Your task to perform on an android device: turn on improve location accuracy Image 0: 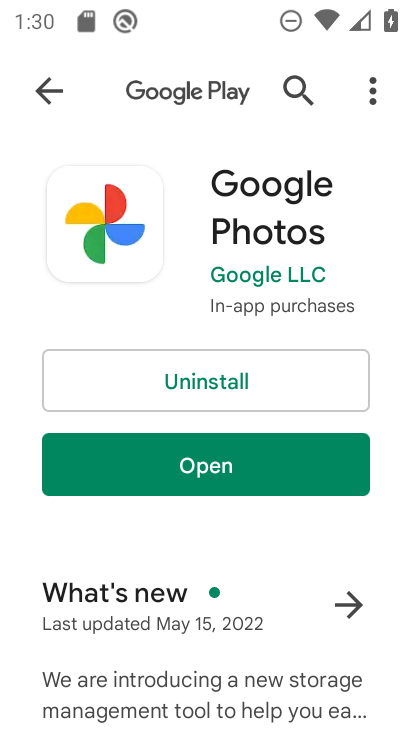
Step 0: press home button
Your task to perform on an android device: turn on improve location accuracy Image 1: 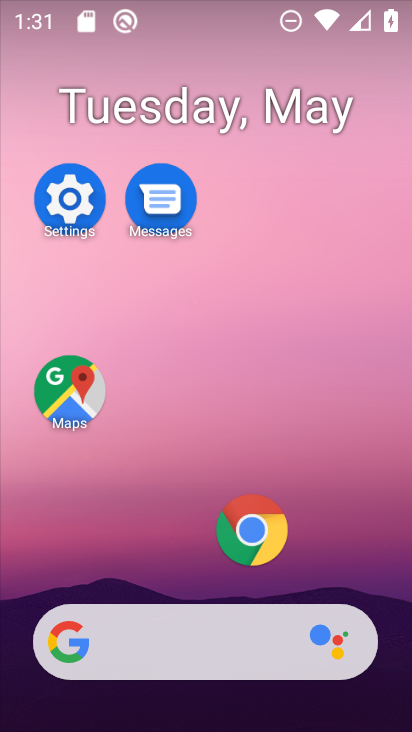
Step 1: drag from (103, 572) to (260, 181)
Your task to perform on an android device: turn on improve location accuracy Image 2: 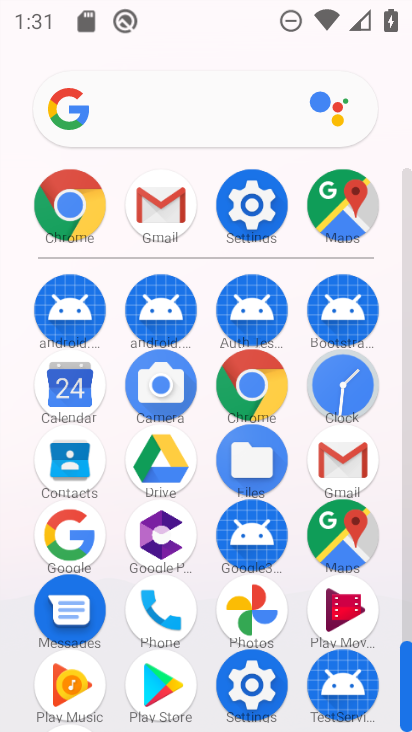
Step 2: click (263, 696)
Your task to perform on an android device: turn on improve location accuracy Image 3: 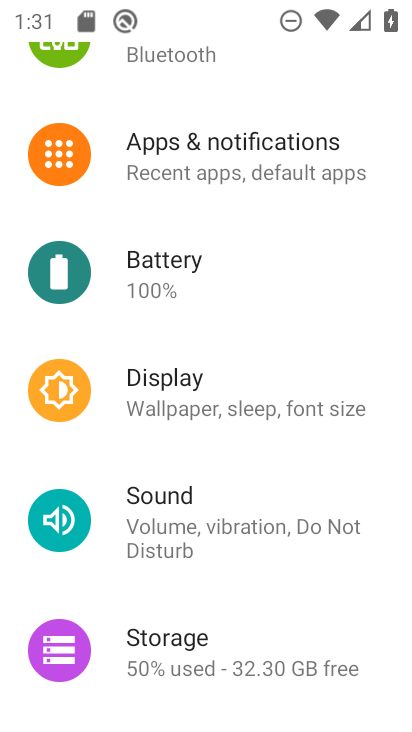
Step 3: drag from (259, 503) to (206, 7)
Your task to perform on an android device: turn on improve location accuracy Image 4: 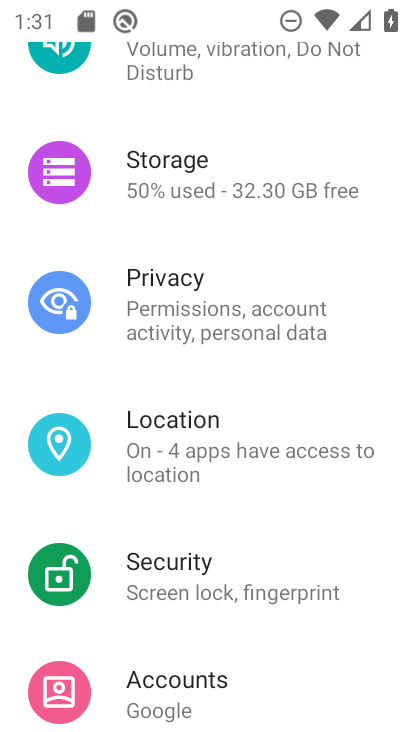
Step 4: click (198, 479)
Your task to perform on an android device: turn on improve location accuracy Image 5: 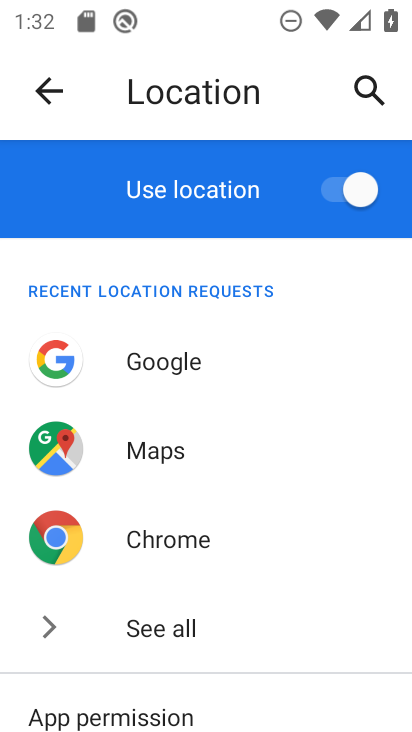
Step 5: drag from (234, 659) to (237, 292)
Your task to perform on an android device: turn on improve location accuracy Image 6: 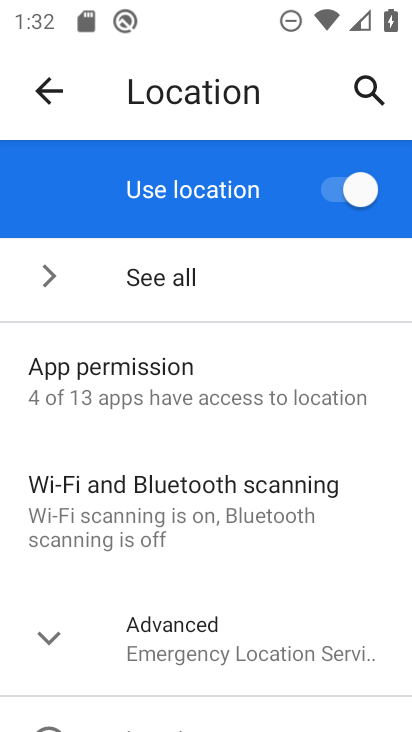
Step 6: click (227, 637)
Your task to perform on an android device: turn on improve location accuracy Image 7: 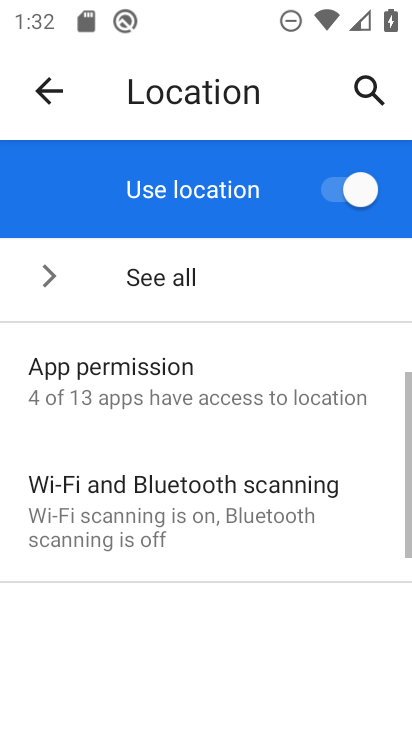
Step 7: drag from (227, 627) to (228, 333)
Your task to perform on an android device: turn on improve location accuracy Image 8: 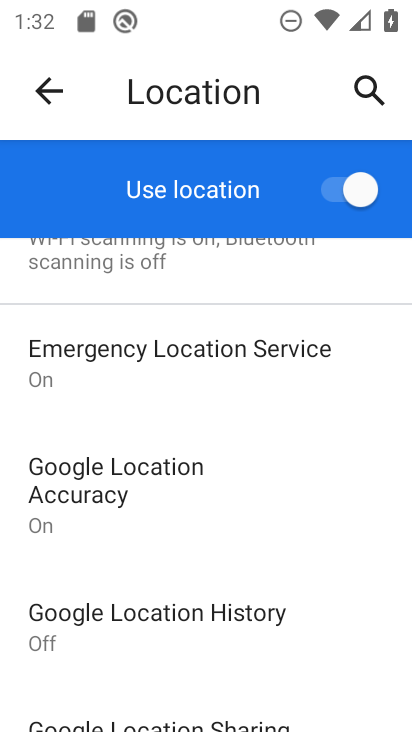
Step 8: click (228, 516)
Your task to perform on an android device: turn on improve location accuracy Image 9: 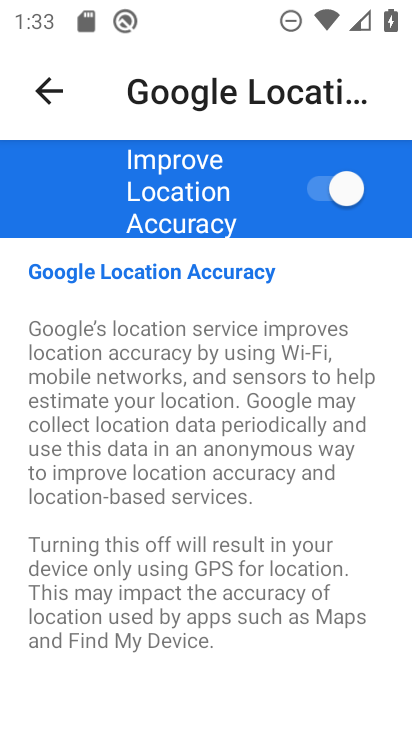
Step 9: task complete